Your task to perform on an android device: Open display settings Image 0: 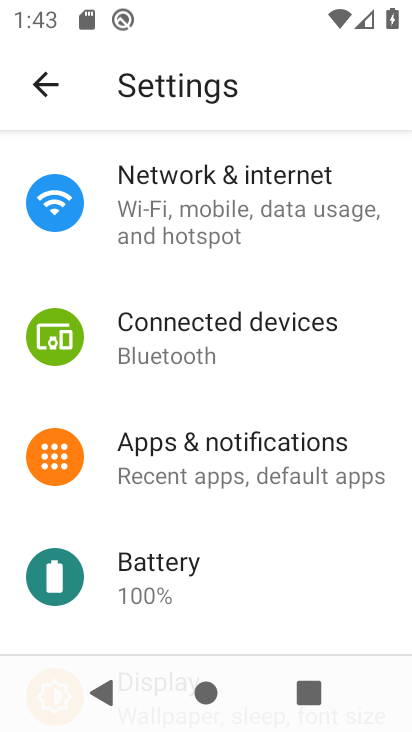
Step 0: drag from (252, 477) to (352, 227)
Your task to perform on an android device: Open display settings Image 1: 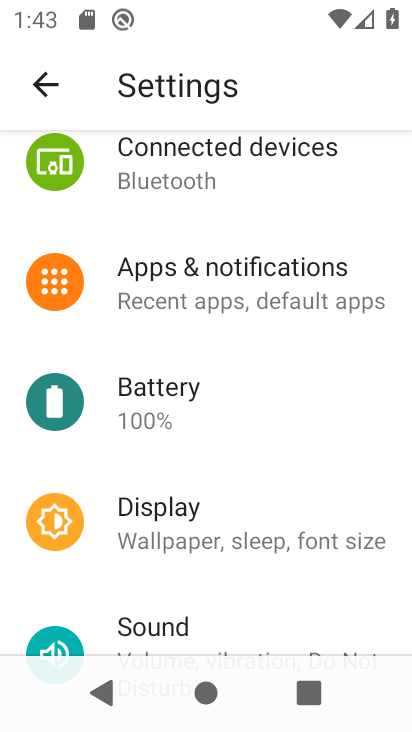
Step 1: click (198, 530)
Your task to perform on an android device: Open display settings Image 2: 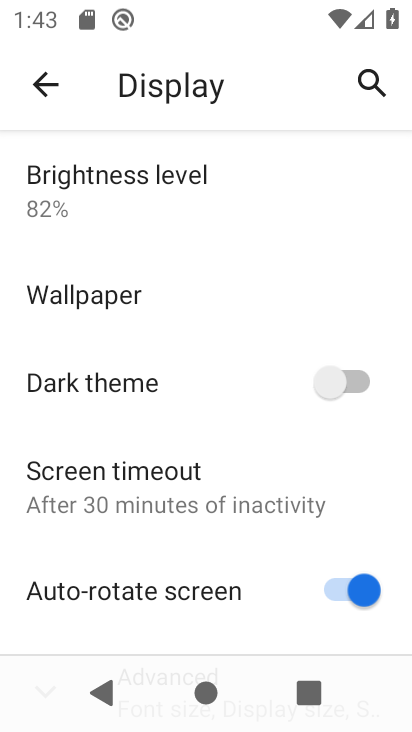
Step 2: task complete